Your task to perform on an android device: Go to eBay Image 0: 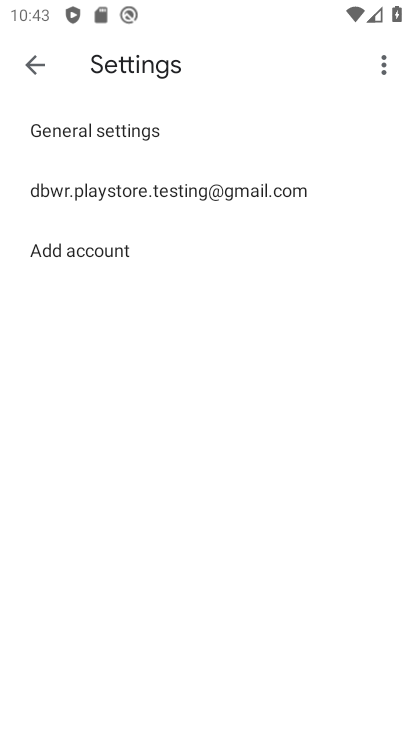
Step 0: press home button
Your task to perform on an android device: Go to eBay Image 1: 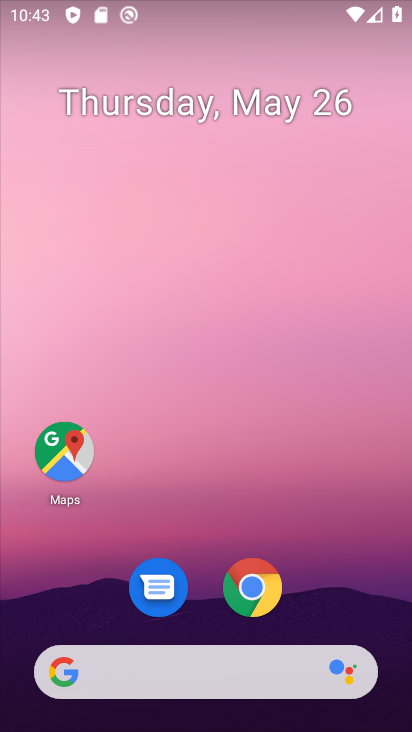
Step 1: drag from (216, 687) to (234, 182)
Your task to perform on an android device: Go to eBay Image 2: 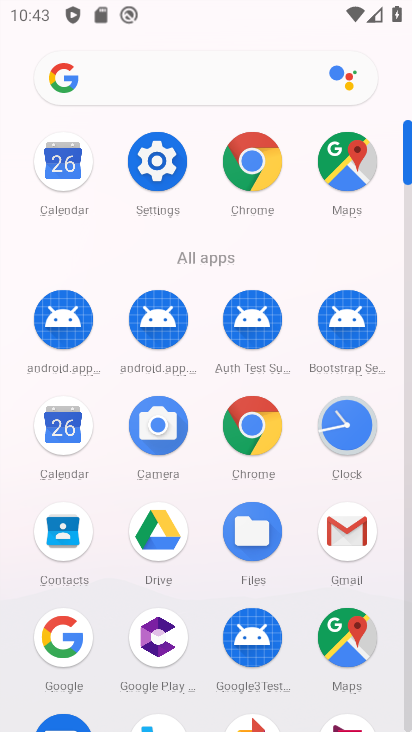
Step 2: click (252, 166)
Your task to perform on an android device: Go to eBay Image 3: 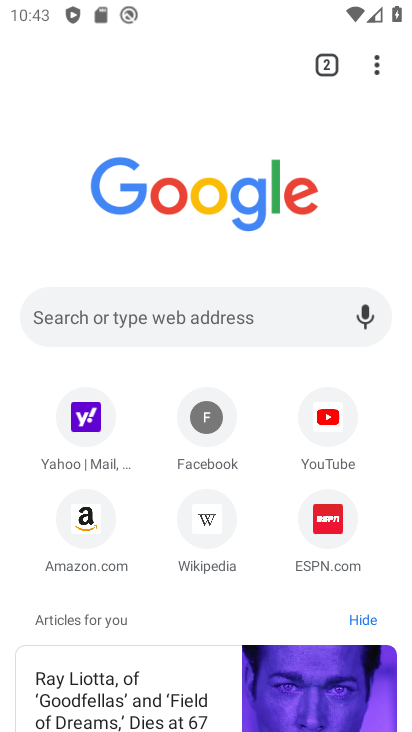
Step 3: click (214, 318)
Your task to perform on an android device: Go to eBay Image 4: 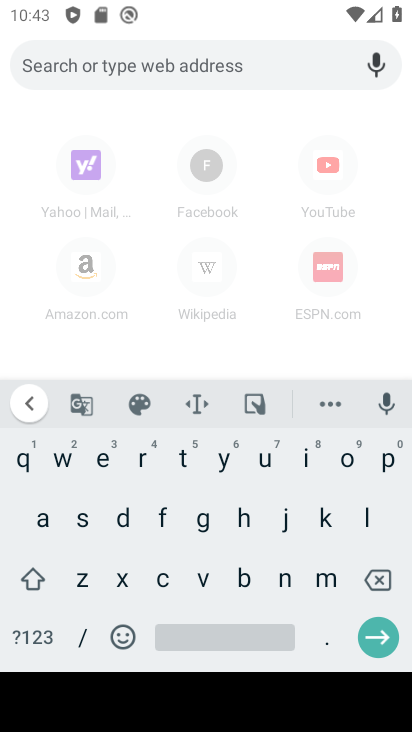
Step 4: click (98, 459)
Your task to perform on an android device: Go to eBay Image 5: 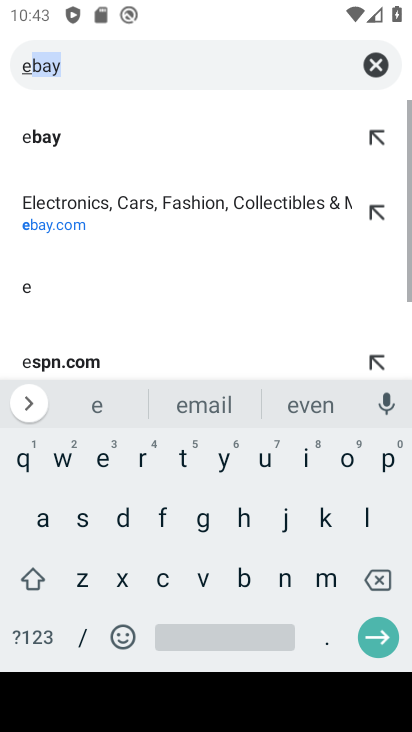
Step 5: click (242, 580)
Your task to perform on an android device: Go to eBay Image 6: 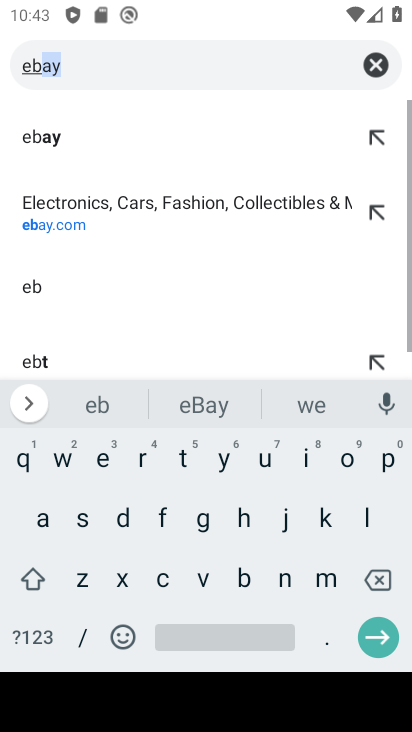
Step 6: click (72, 147)
Your task to perform on an android device: Go to eBay Image 7: 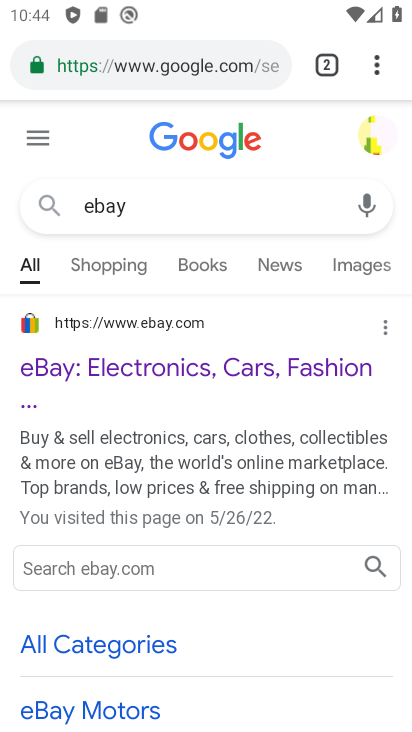
Step 7: click (87, 371)
Your task to perform on an android device: Go to eBay Image 8: 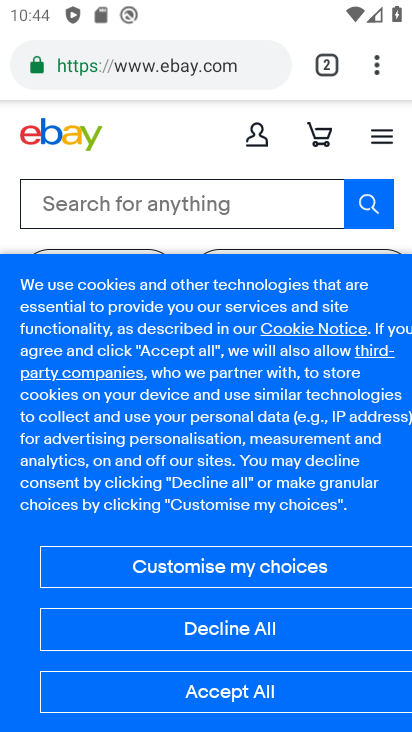
Step 8: task complete